Your task to perform on an android device: turn off data saver in the chrome app Image 0: 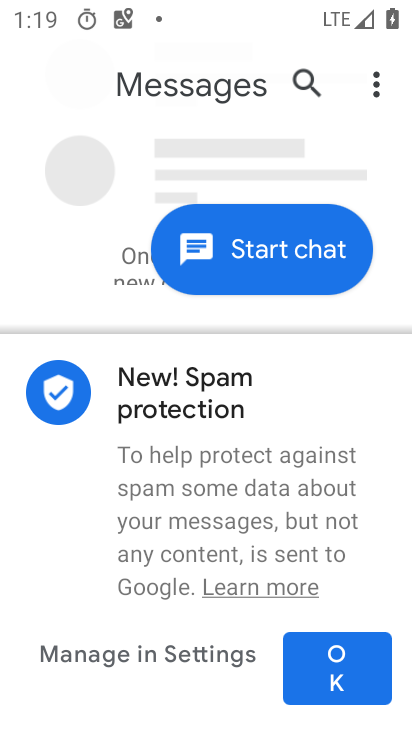
Step 0: press home button
Your task to perform on an android device: turn off data saver in the chrome app Image 1: 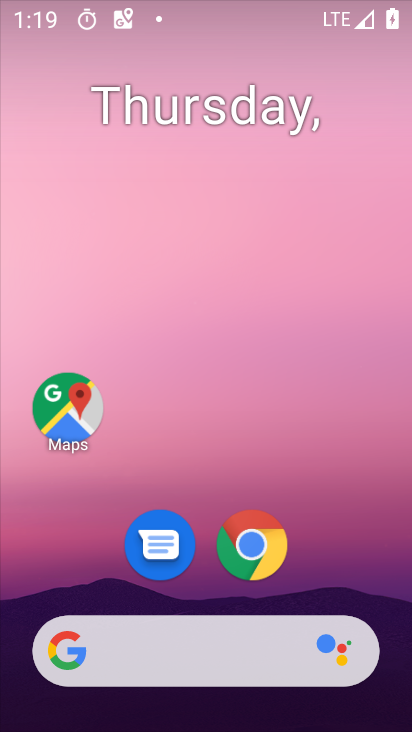
Step 1: drag from (266, 613) to (324, 2)
Your task to perform on an android device: turn off data saver in the chrome app Image 2: 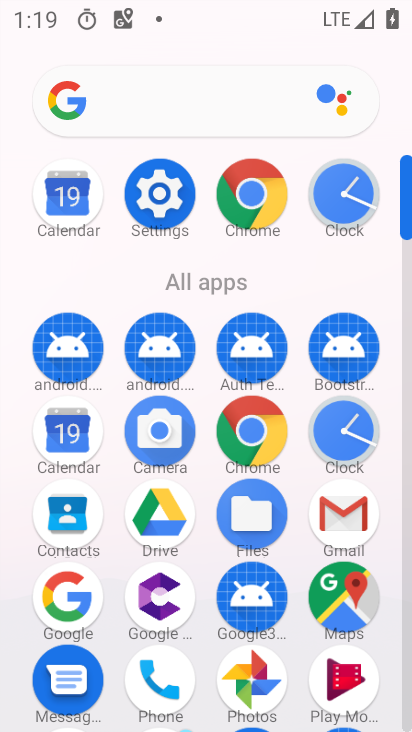
Step 2: click (249, 415)
Your task to perform on an android device: turn off data saver in the chrome app Image 3: 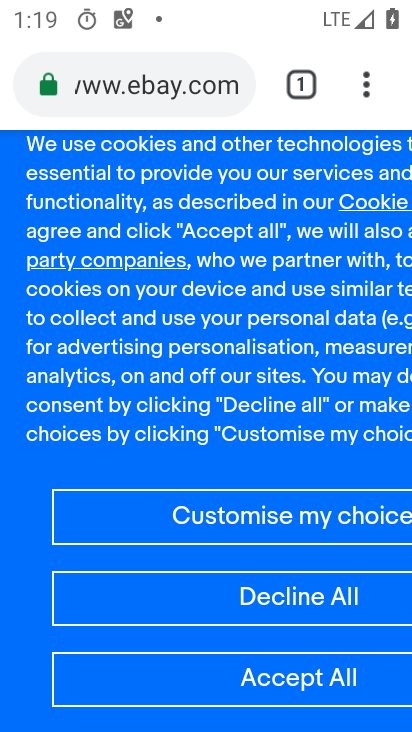
Step 3: click (361, 81)
Your task to perform on an android device: turn off data saver in the chrome app Image 4: 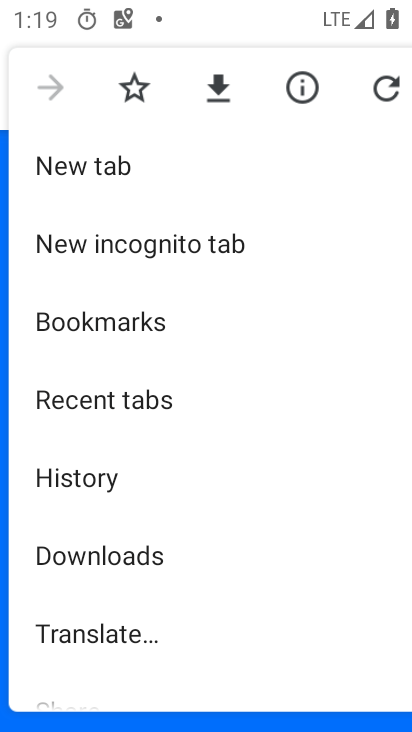
Step 4: drag from (209, 605) to (246, 112)
Your task to perform on an android device: turn off data saver in the chrome app Image 5: 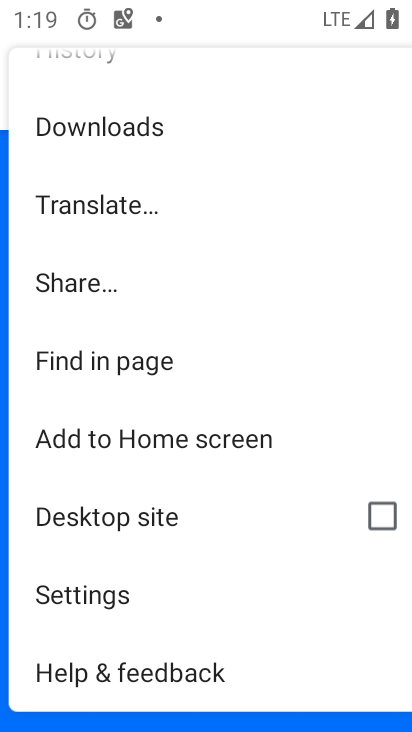
Step 5: click (138, 596)
Your task to perform on an android device: turn off data saver in the chrome app Image 6: 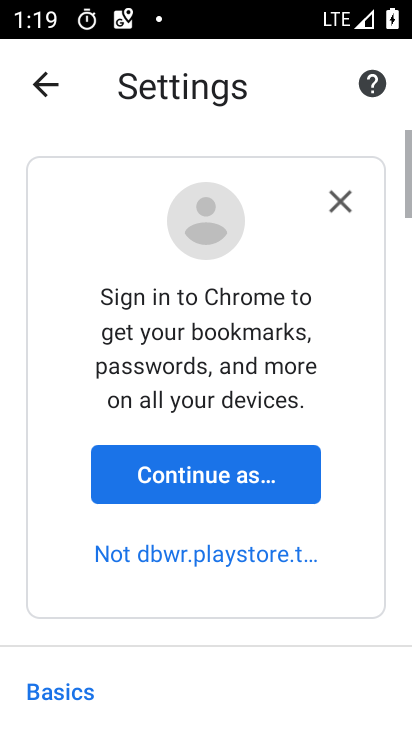
Step 6: drag from (282, 663) to (410, 88)
Your task to perform on an android device: turn off data saver in the chrome app Image 7: 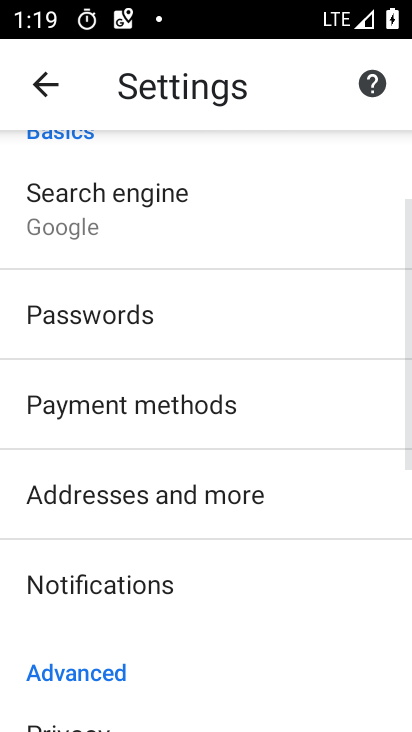
Step 7: drag from (290, 709) to (306, 226)
Your task to perform on an android device: turn off data saver in the chrome app Image 8: 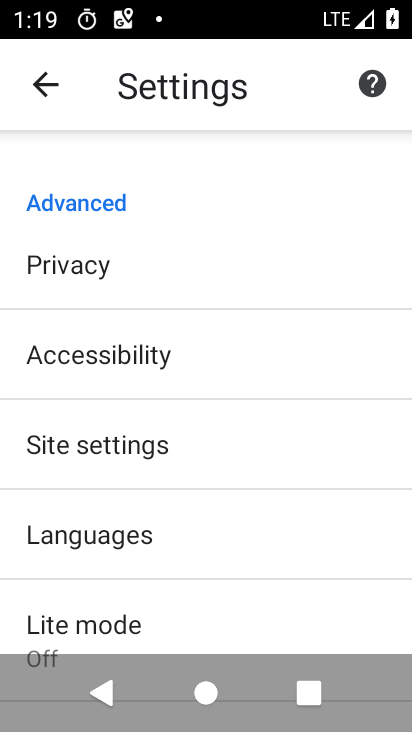
Step 8: click (186, 633)
Your task to perform on an android device: turn off data saver in the chrome app Image 9: 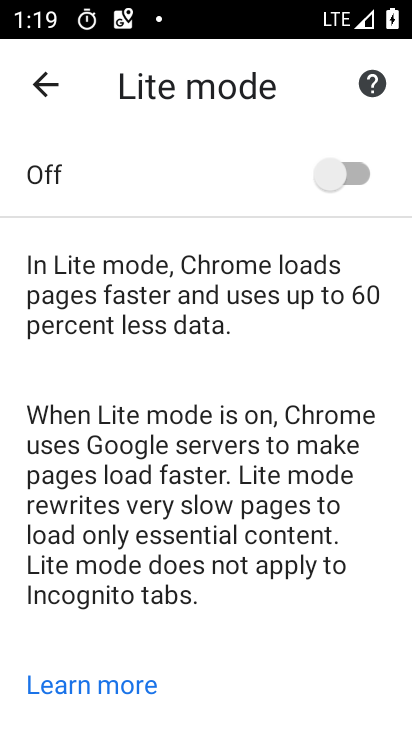
Step 9: task complete